Your task to perform on an android device: set an alarm Image 0: 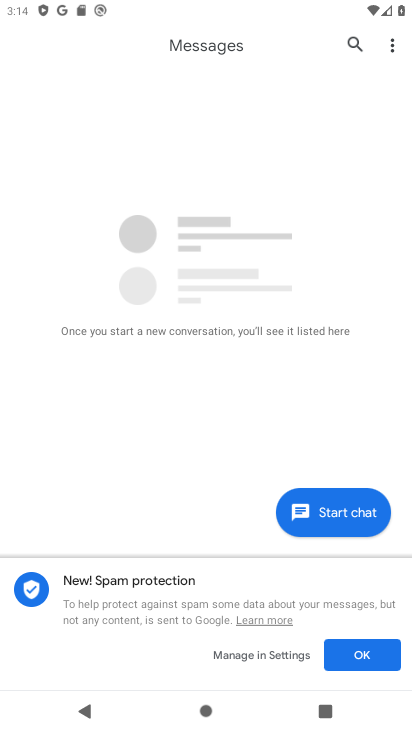
Step 0: press home button
Your task to perform on an android device: set an alarm Image 1: 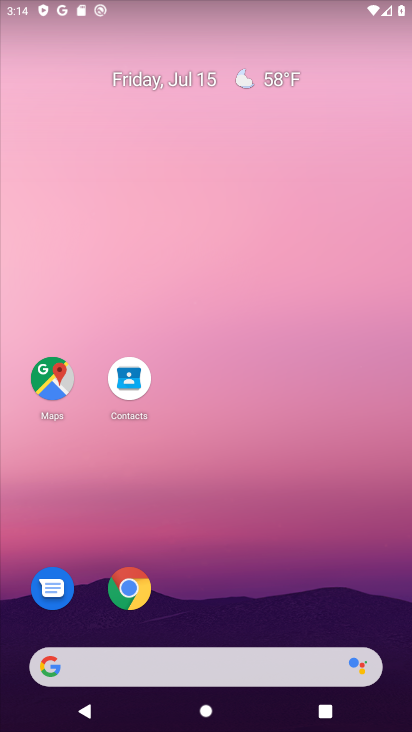
Step 1: drag from (258, 576) to (212, 230)
Your task to perform on an android device: set an alarm Image 2: 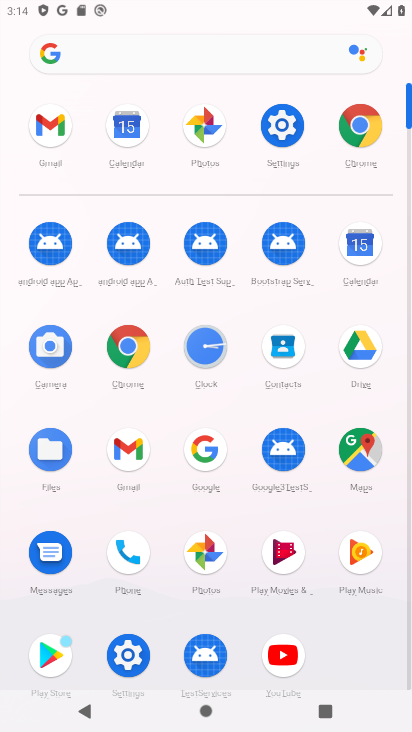
Step 2: click (213, 350)
Your task to perform on an android device: set an alarm Image 3: 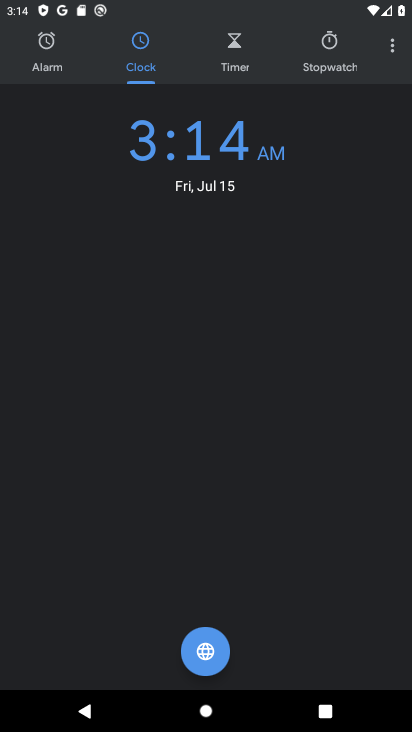
Step 3: click (36, 46)
Your task to perform on an android device: set an alarm Image 4: 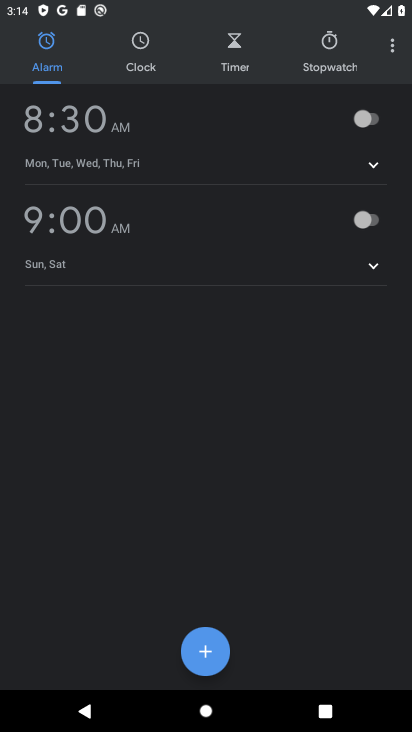
Step 4: click (360, 235)
Your task to perform on an android device: set an alarm Image 5: 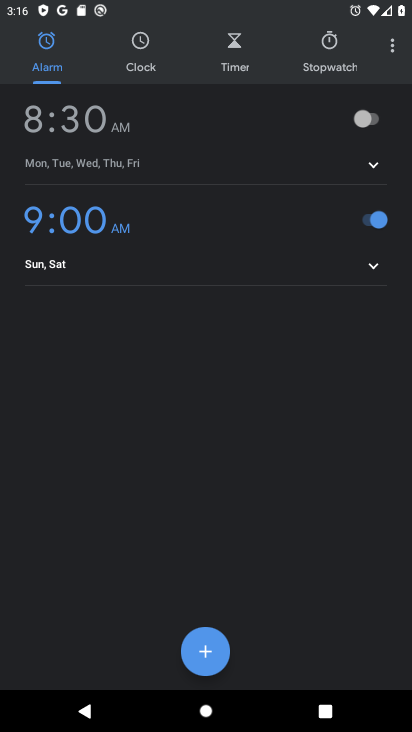
Step 5: task complete